Your task to perform on an android device: toggle data saver in the chrome app Image 0: 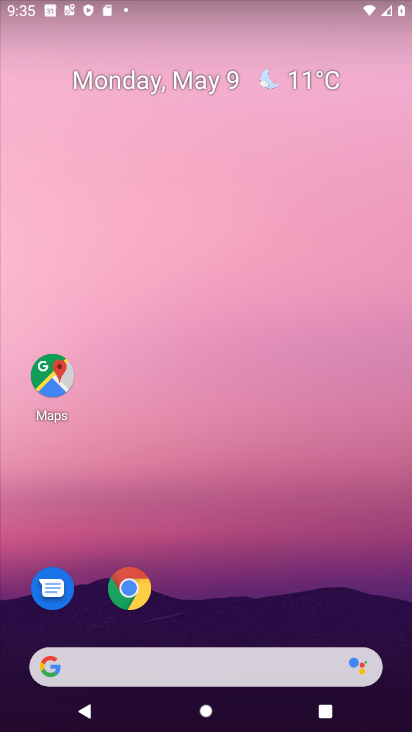
Step 0: drag from (197, 662) to (256, 163)
Your task to perform on an android device: toggle data saver in the chrome app Image 1: 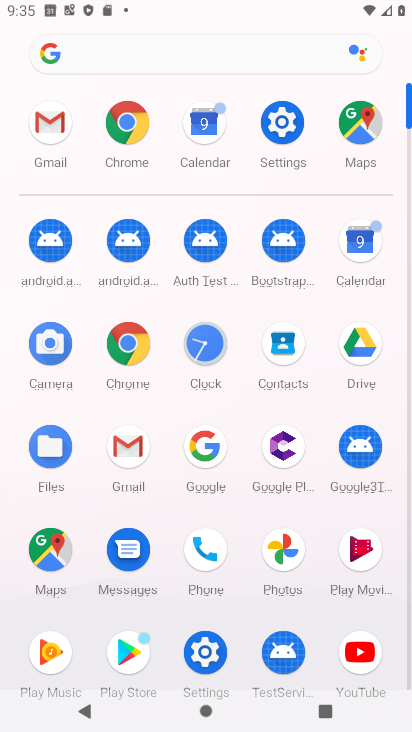
Step 1: click (125, 135)
Your task to perform on an android device: toggle data saver in the chrome app Image 2: 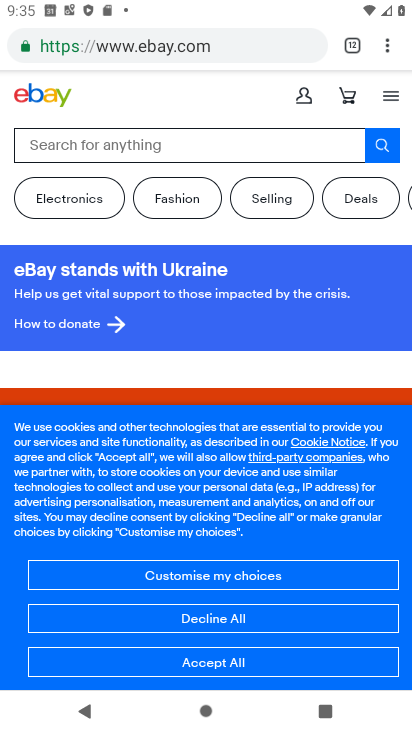
Step 2: drag from (386, 49) to (222, 546)
Your task to perform on an android device: toggle data saver in the chrome app Image 3: 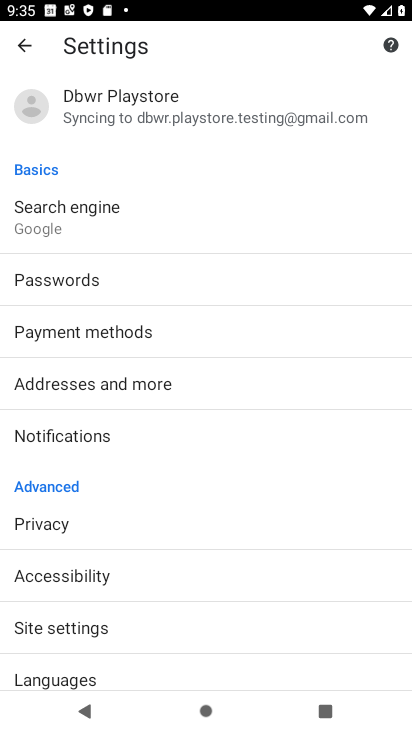
Step 3: drag from (127, 626) to (215, 322)
Your task to perform on an android device: toggle data saver in the chrome app Image 4: 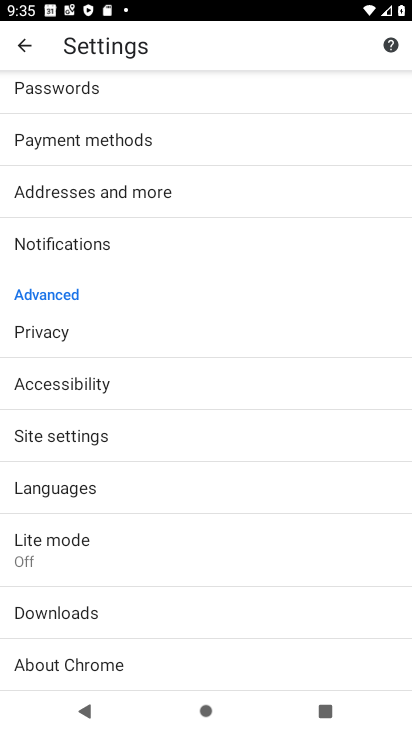
Step 4: click (79, 552)
Your task to perform on an android device: toggle data saver in the chrome app Image 5: 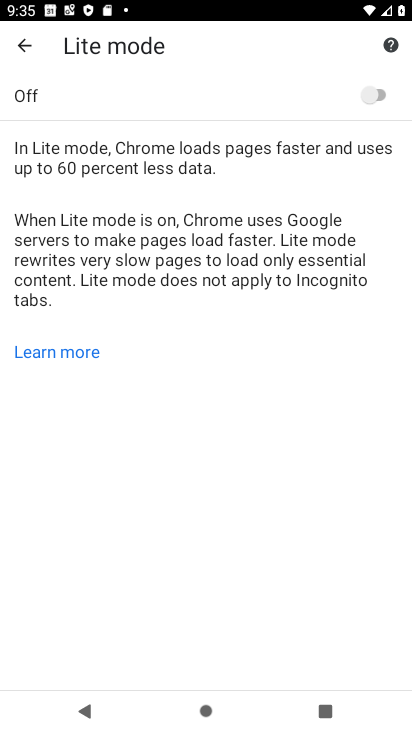
Step 5: click (379, 97)
Your task to perform on an android device: toggle data saver in the chrome app Image 6: 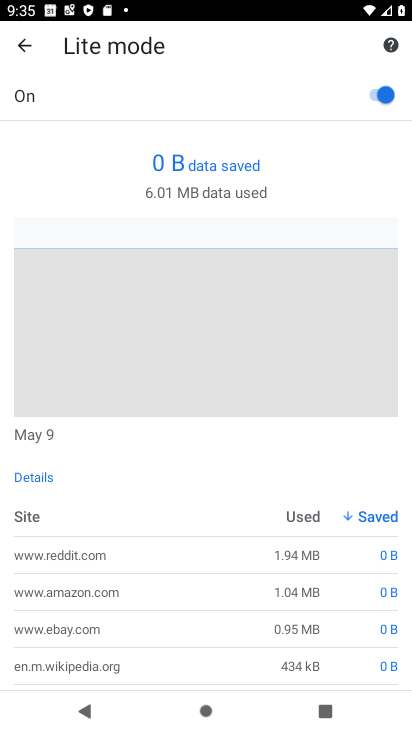
Step 6: task complete